Your task to perform on an android device: find photos in the google photos app Image 0: 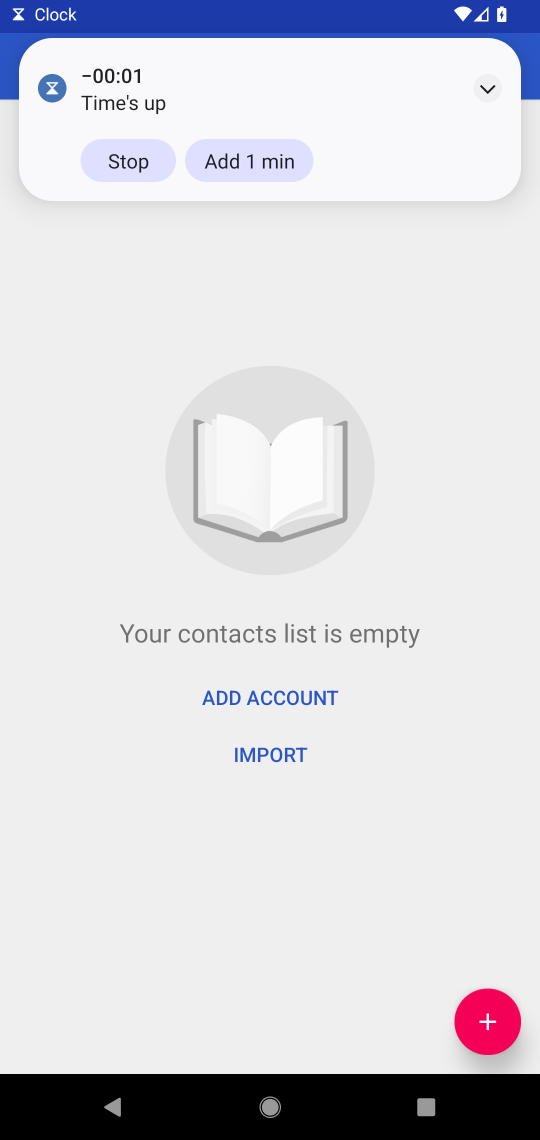
Step 0: press home button
Your task to perform on an android device: find photos in the google photos app Image 1: 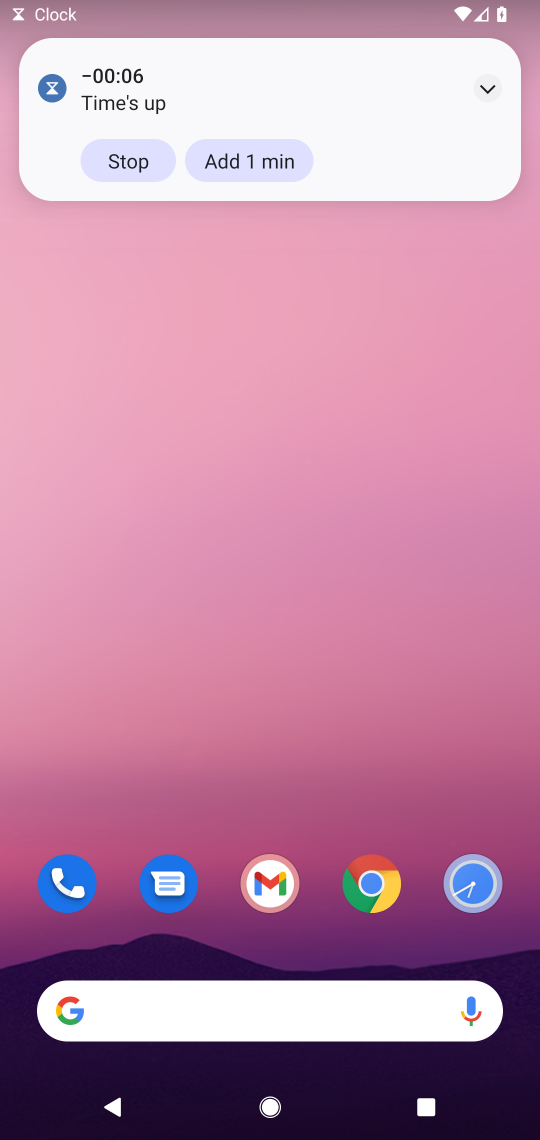
Step 1: drag from (261, 804) to (265, 264)
Your task to perform on an android device: find photos in the google photos app Image 2: 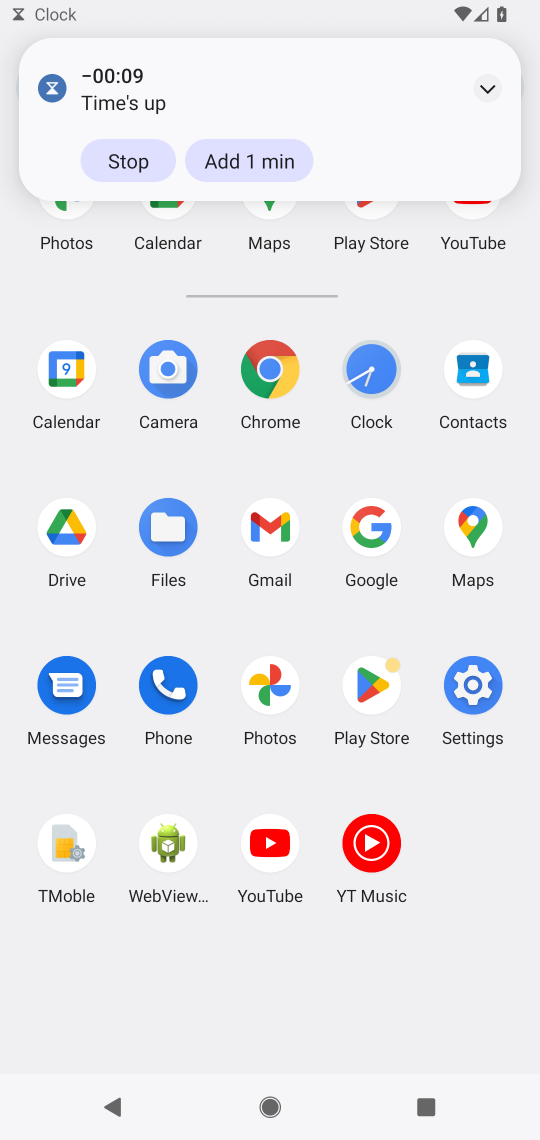
Step 2: click (283, 698)
Your task to perform on an android device: find photos in the google photos app Image 3: 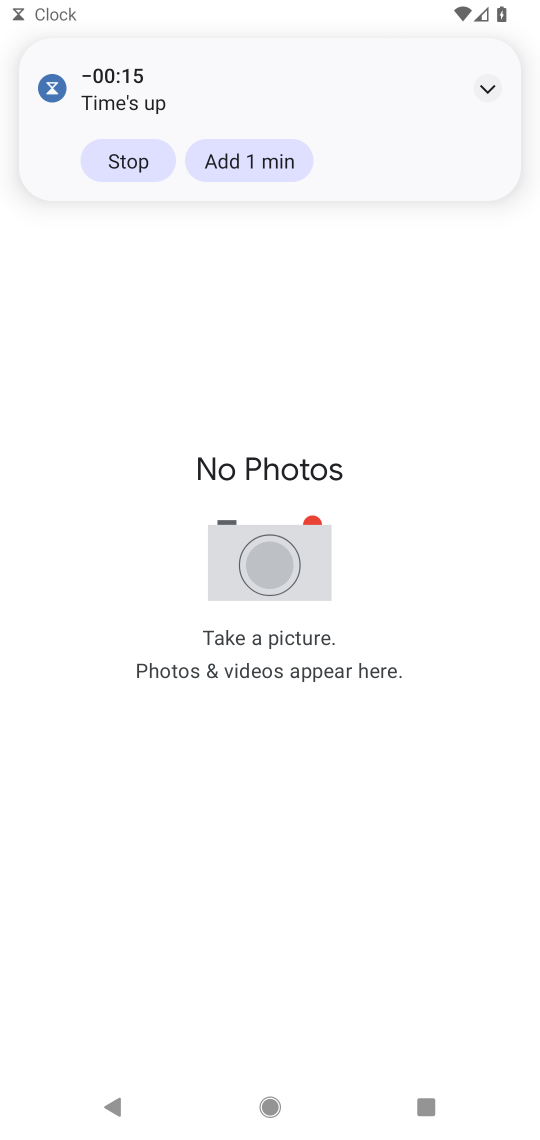
Step 3: click (129, 163)
Your task to perform on an android device: find photos in the google photos app Image 4: 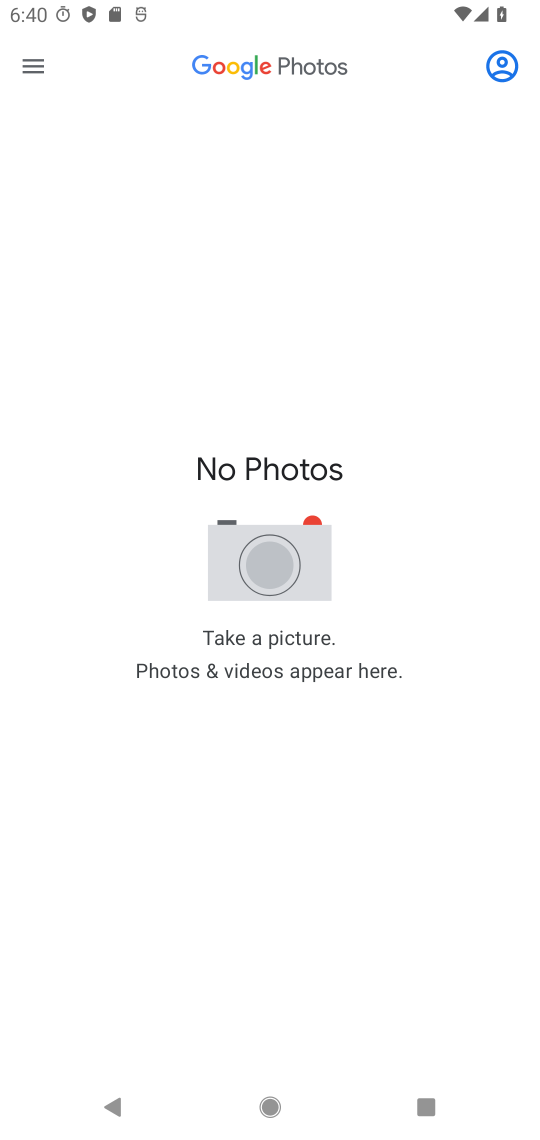
Step 4: click (223, 78)
Your task to perform on an android device: find photos in the google photos app Image 5: 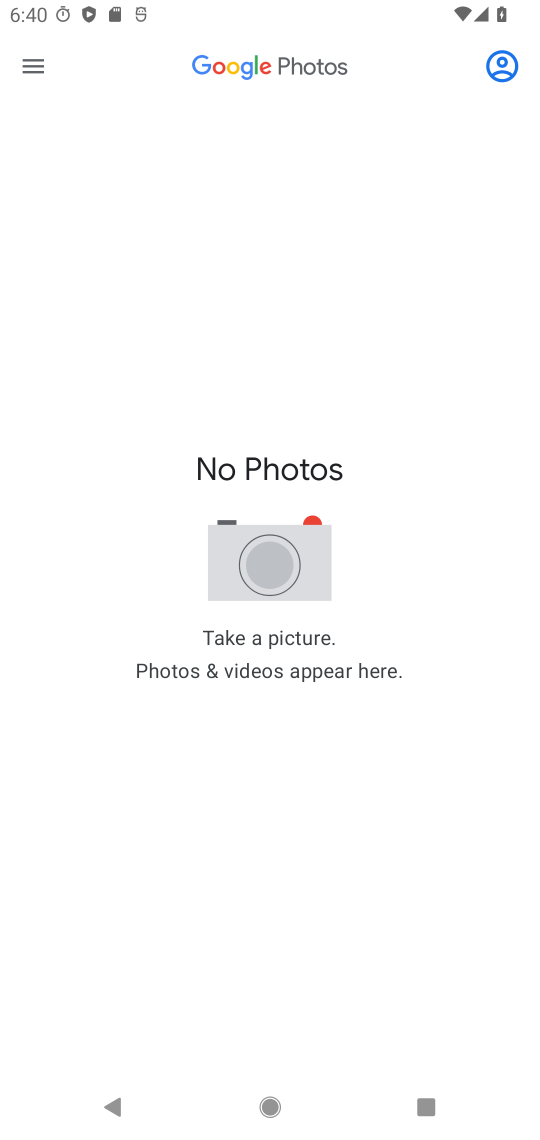
Step 5: click (199, 60)
Your task to perform on an android device: find photos in the google photos app Image 6: 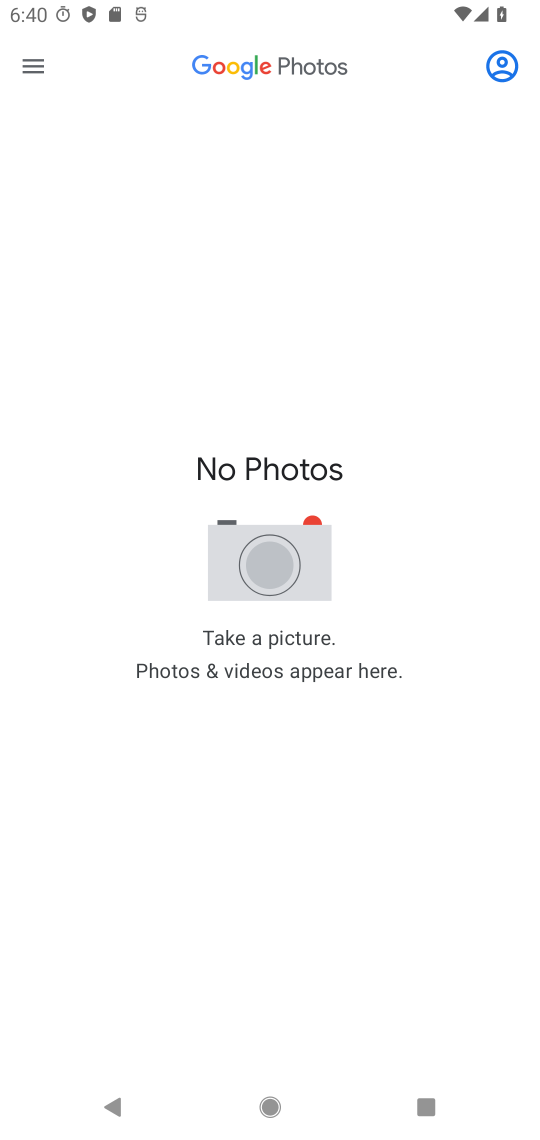
Step 6: click (242, 64)
Your task to perform on an android device: find photos in the google photos app Image 7: 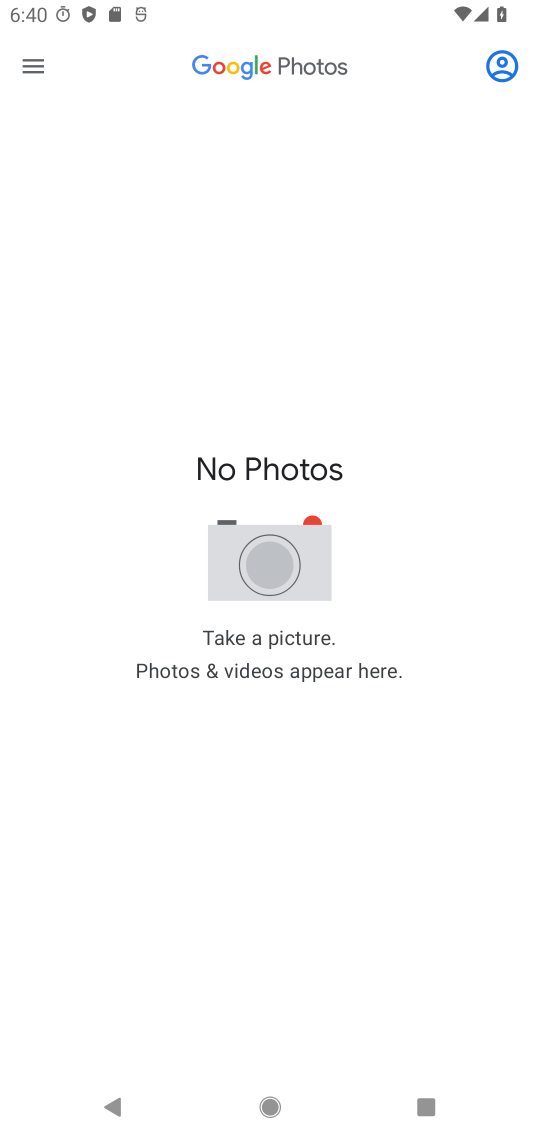
Step 7: click (28, 72)
Your task to perform on an android device: find photos in the google photos app Image 8: 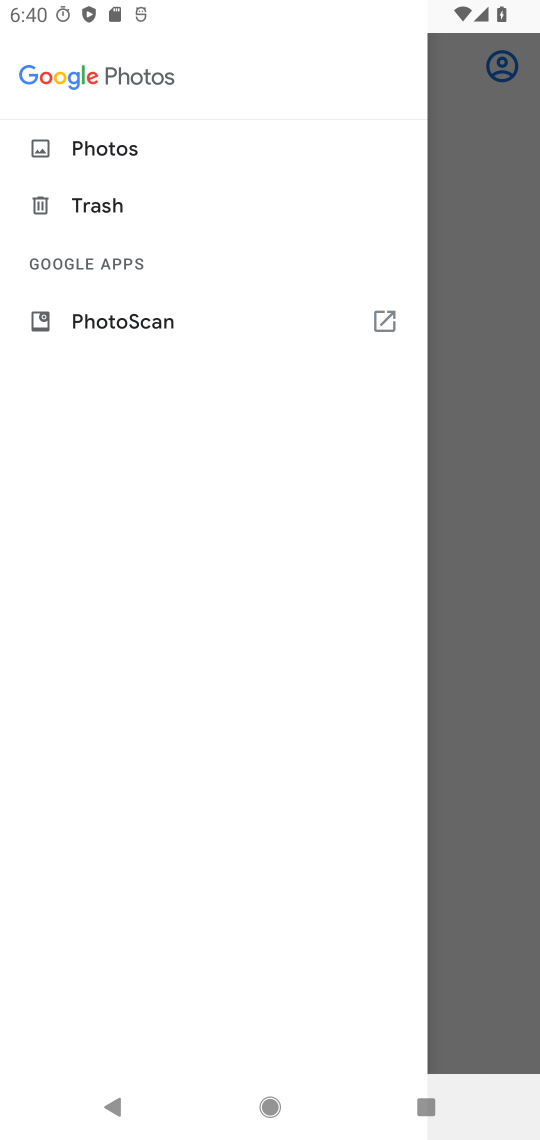
Step 8: click (177, 136)
Your task to perform on an android device: find photos in the google photos app Image 9: 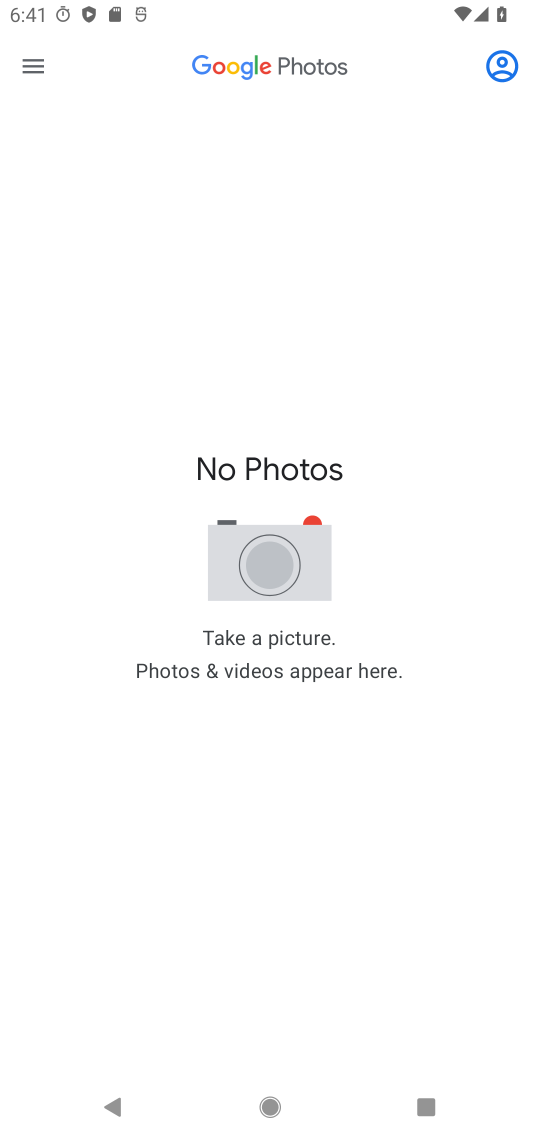
Step 9: task complete